Your task to perform on an android device: delete location history Image 0: 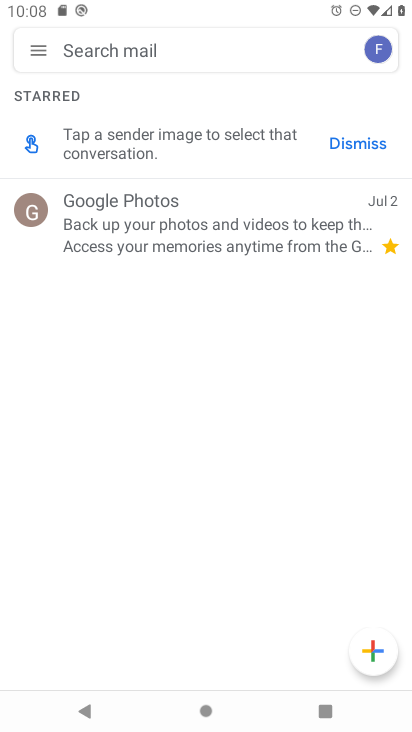
Step 0: press home button
Your task to perform on an android device: delete location history Image 1: 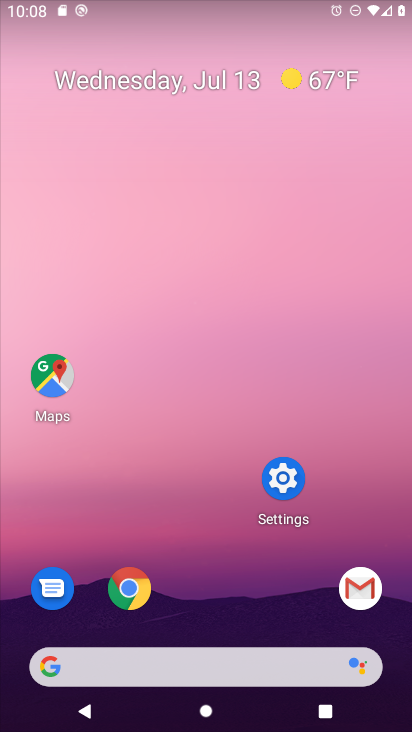
Step 1: click (277, 492)
Your task to perform on an android device: delete location history Image 2: 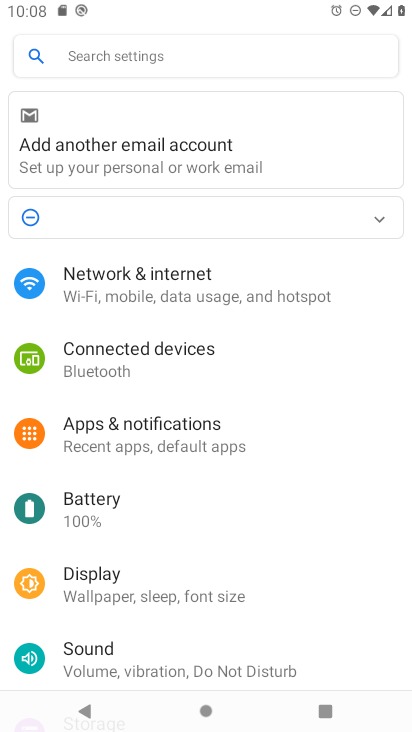
Step 2: click (106, 63)
Your task to perform on an android device: delete location history Image 3: 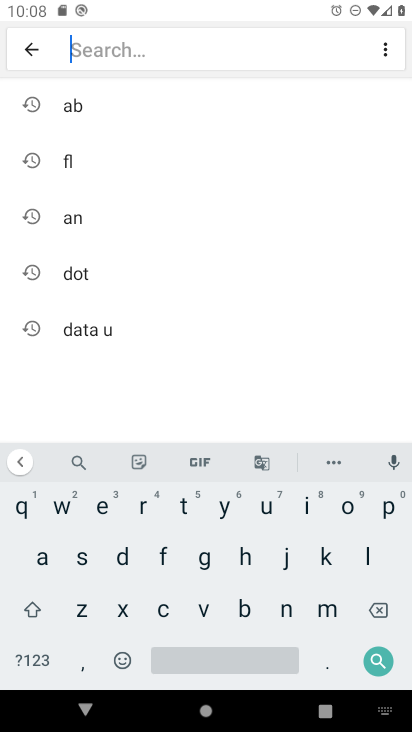
Step 3: click (368, 563)
Your task to perform on an android device: delete location history Image 4: 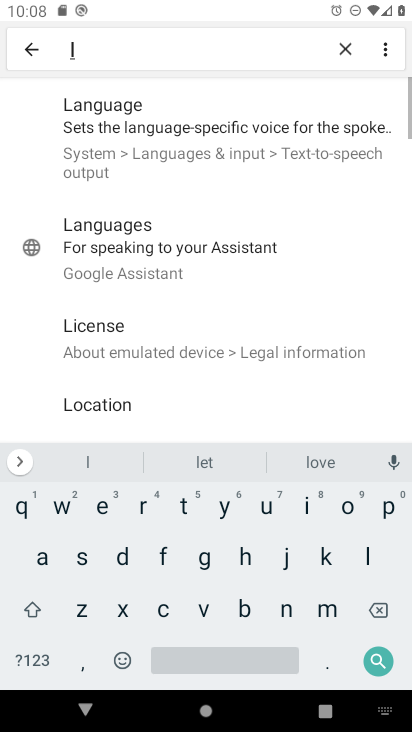
Step 4: click (345, 508)
Your task to perform on an android device: delete location history Image 5: 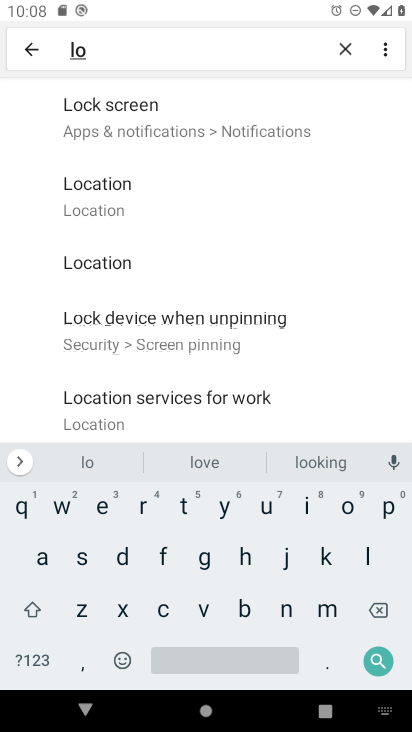
Step 5: click (104, 196)
Your task to perform on an android device: delete location history Image 6: 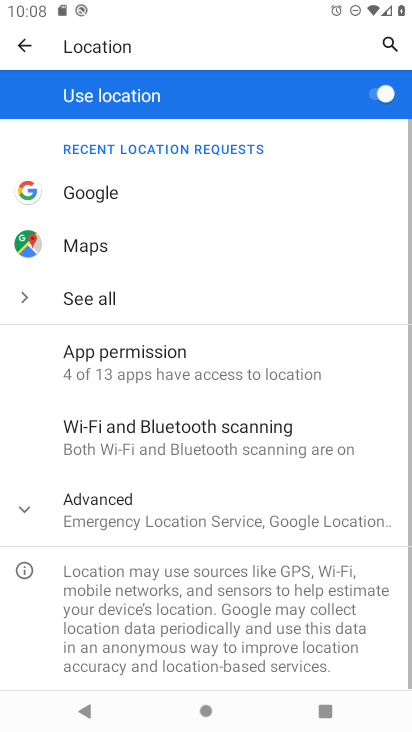
Step 6: click (56, 502)
Your task to perform on an android device: delete location history Image 7: 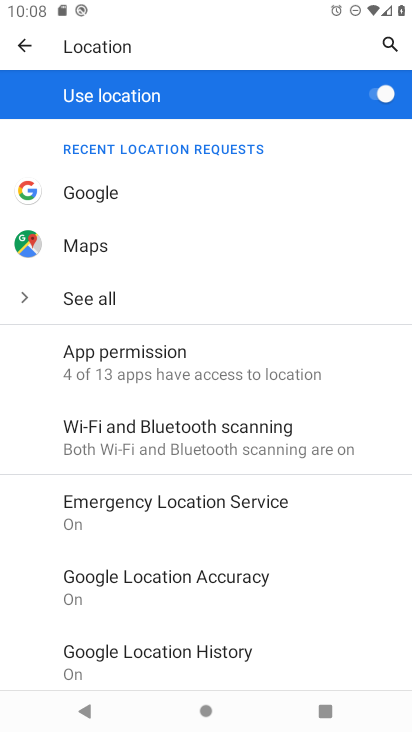
Step 7: click (209, 646)
Your task to perform on an android device: delete location history Image 8: 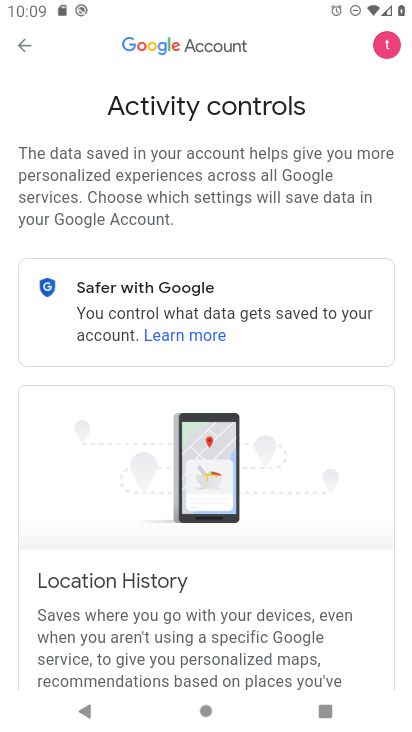
Step 8: task complete